Your task to perform on an android device: Open Reddit.com Image 0: 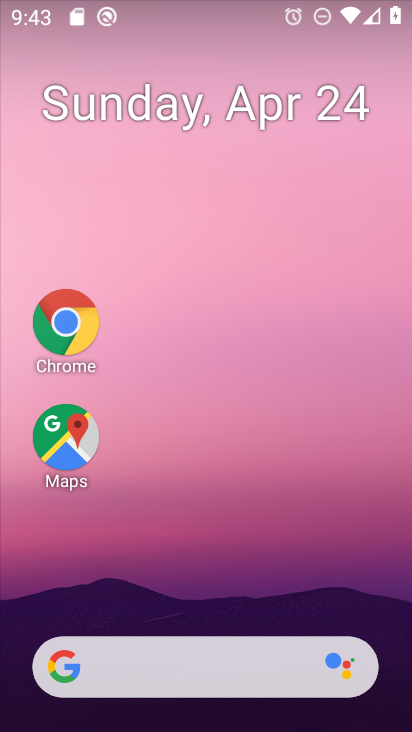
Step 0: click (183, 653)
Your task to perform on an android device: Open Reddit.com Image 1: 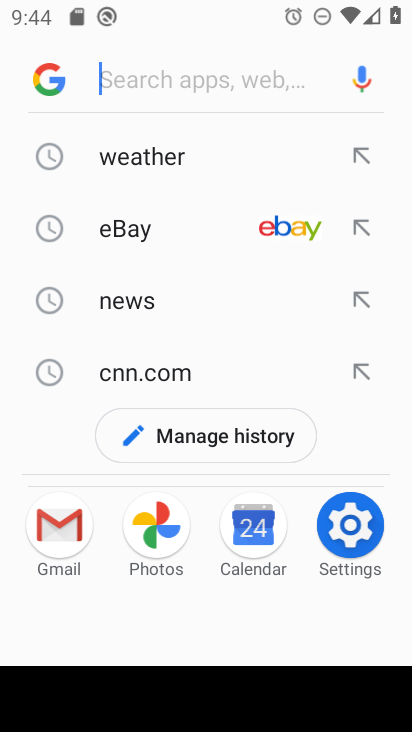
Step 1: type "Reddit.com"
Your task to perform on an android device: Open Reddit.com Image 2: 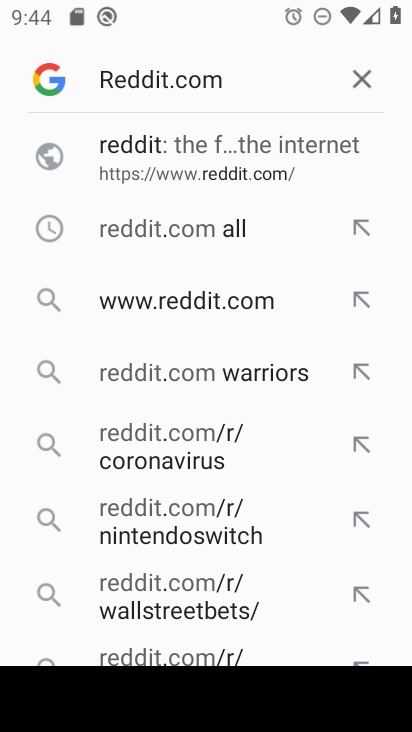
Step 2: click (213, 156)
Your task to perform on an android device: Open Reddit.com Image 3: 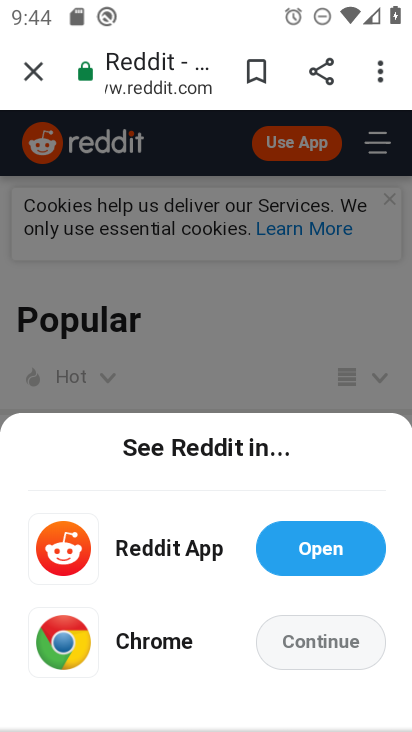
Step 3: task complete